Your task to perform on an android device: open a new tab in the chrome app Image 0: 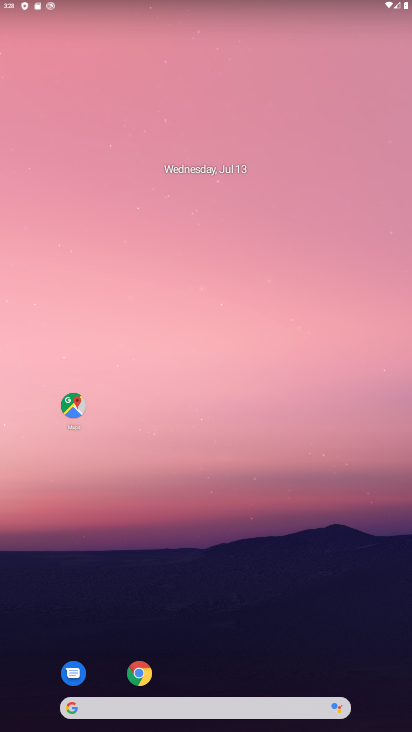
Step 0: click (134, 678)
Your task to perform on an android device: open a new tab in the chrome app Image 1: 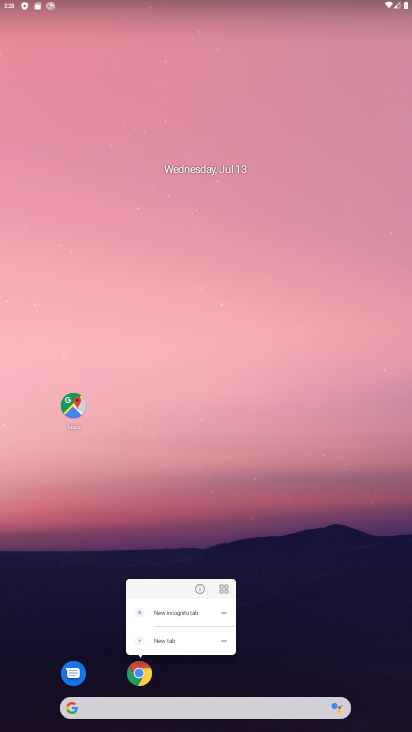
Step 1: click (134, 678)
Your task to perform on an android device: open a new tab in the chrome app Image 2: 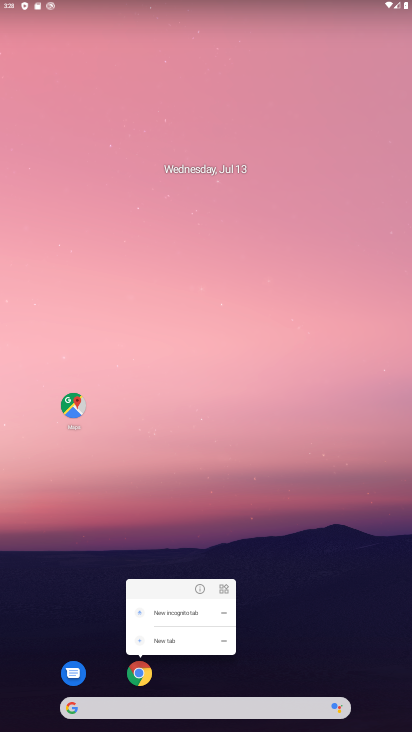
Step 2: click (140, 682)
Your task to perform on an android device: open a new tab in the chrome app Image 3: 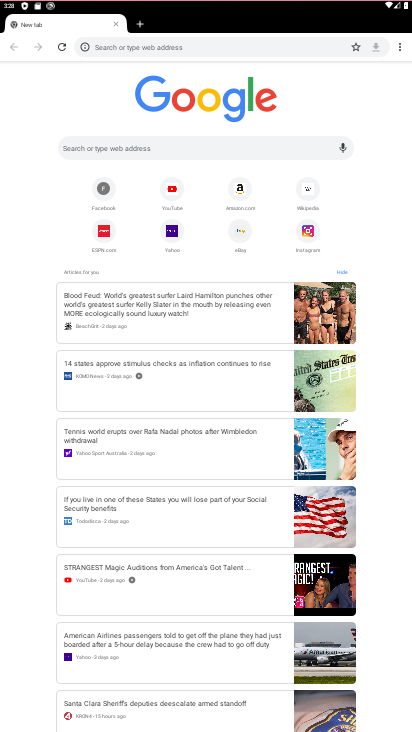
Step 3: click (138, 673)
Your task to perform on an android device: open a new tab in the chrome app Image 4: 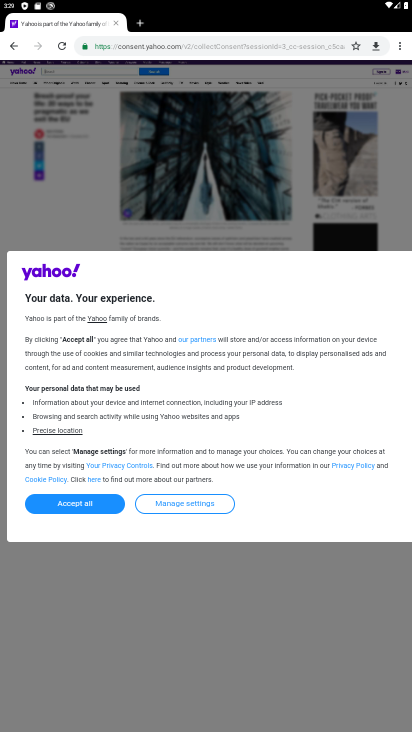
Step 4: click (402, 41)
Your task to perform on an android device: open a new tab in the chrome app Image 5: 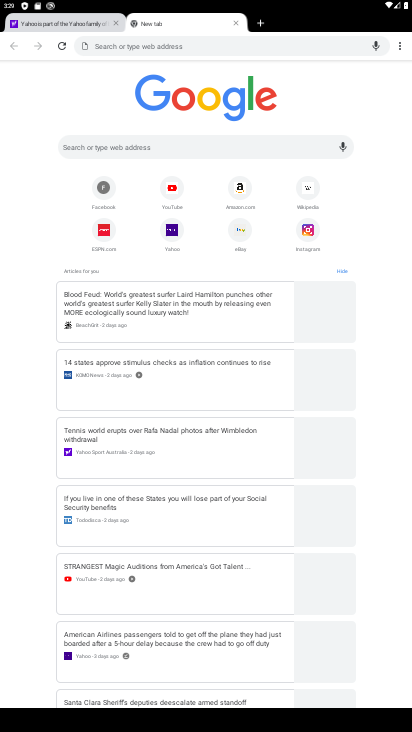
Step 5: click (401, 42)
Your task to perform on an android device: open a new tab in the chrome app Image 6: 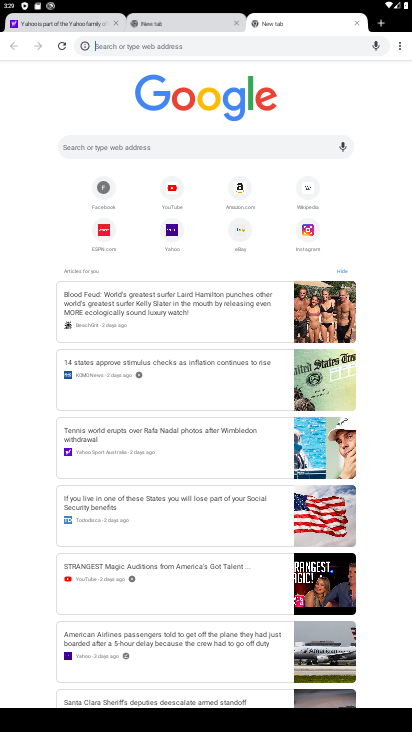
Step 6: click (400, 50)
Your task to perform on an android device: open a new tab in the chrome app Image 7: 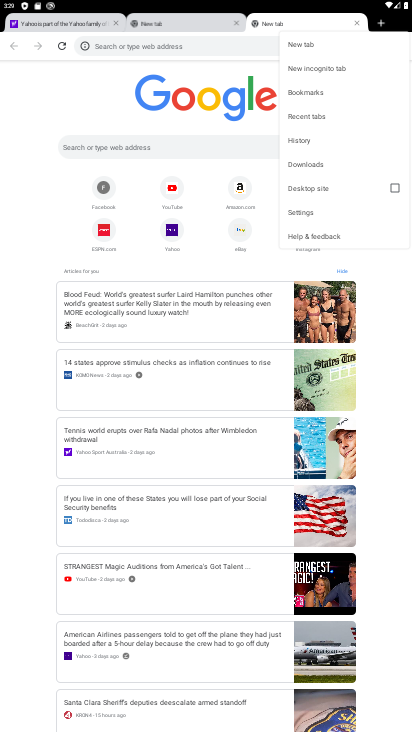
Step 7: click (303, 46)
Your task to perform on an android device: open a new tab in the chrome app Image 8: 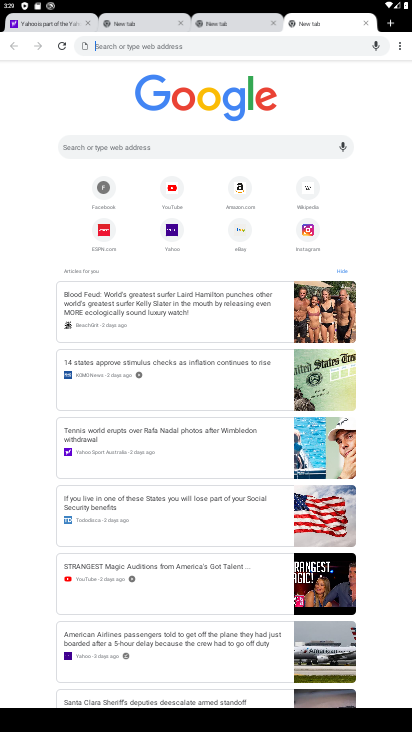
Step 8: task complete